Your task to perform on an android device: turn notification dots off Image 0: 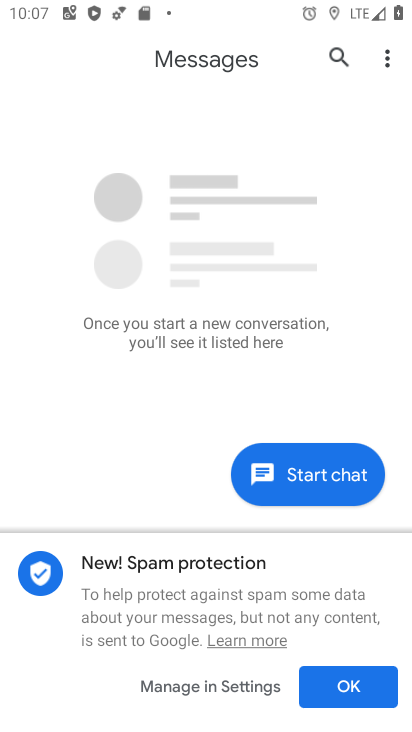
Step 0: press home button
Your task to perform on an android device: turn notification dots off Image 1: 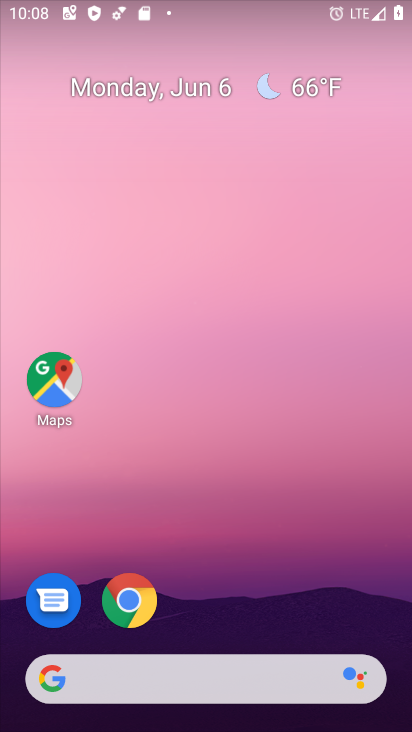
Step 1: drag from (0, 0) to (330, 219)
Your task to perform on an android device: turn notification dots off Image 2: 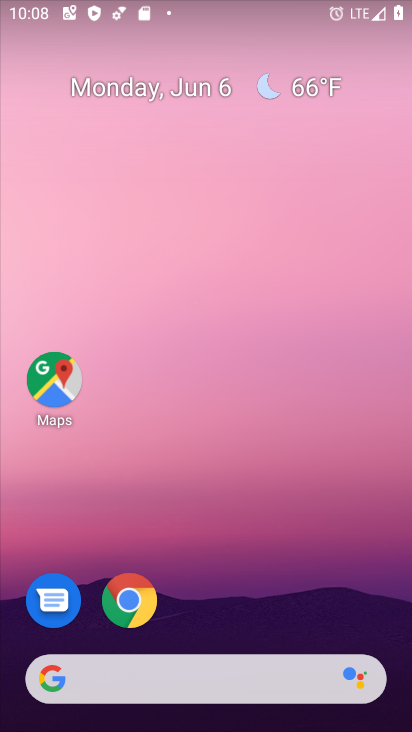
Step 2: drag from (37, 633) to (288, 129)
Your task to perform on an android device: turn notification dots off Image 3: 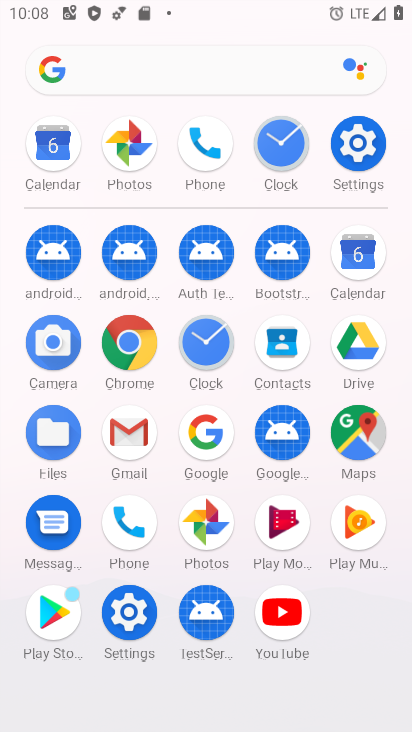
Step 3: click (349, 157)
Your task to perform on an android device: turn notification dots off Image 4: 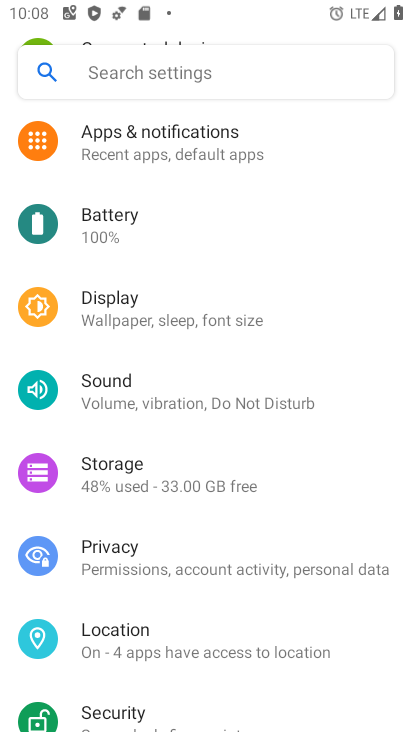
Step 4: click (136, 163)
Your task to perform on an android device: turn notification dots off Image 5: 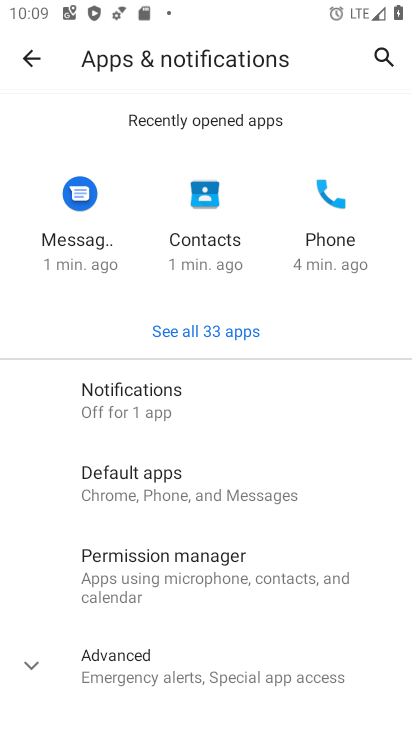
Step 5: click (140, 410)
Your task to perform on an android device: turn notification dots off Image 6: 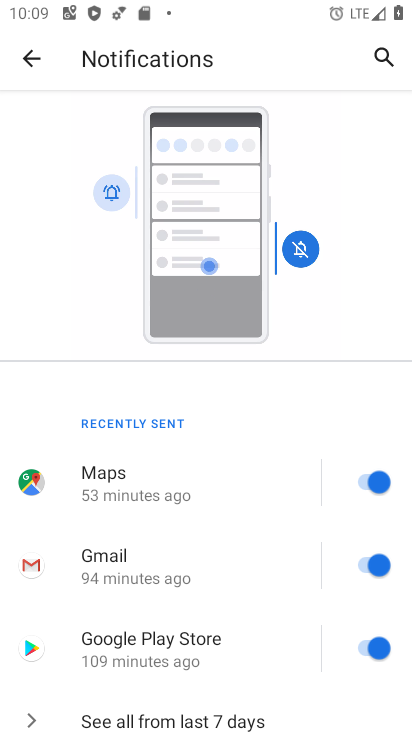
Step 6: drag from (33, 564) to (237, 282)
Your task to perform on an android device: turn notification dots off Image 7: 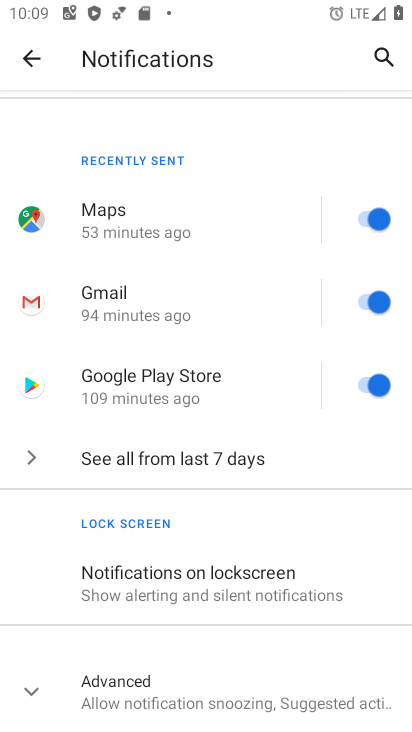
Step 7: click (121, 691)
Your task to perform on an android device: turn notification dots off Image 8: 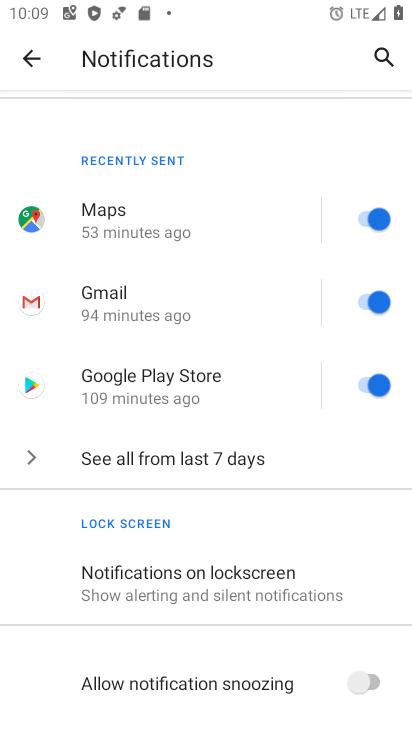
Step 8: drag from (20, 669) to (256, 257)
Your task to perform on an android device: turn notification dots off Image 9: 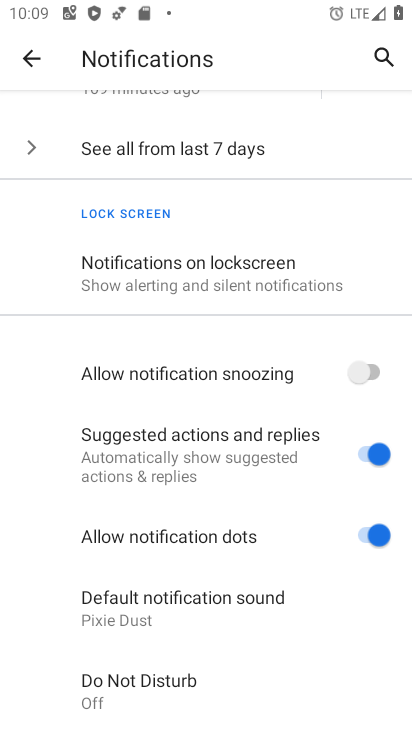
Step 9: drag from (20, 644) to (261, 240)
Your task to perform on an android device: turn notification dots off Image 10: 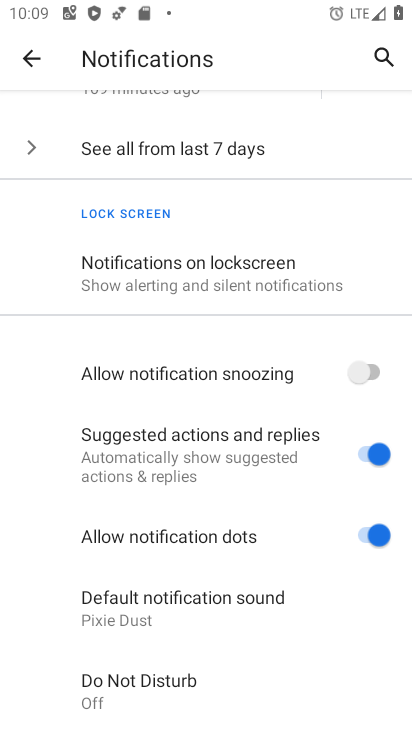
Step 10: click (377, 530)
Your task to perform on an android device: turn notification dots off Image 11: 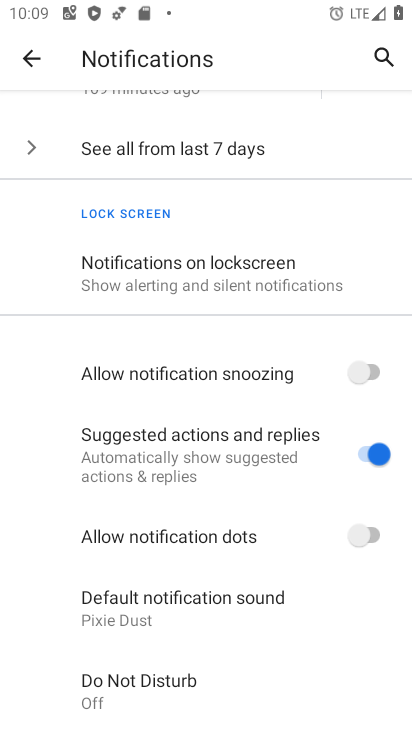
Step 11: task complete